Your task to perform on an android device: set the stopwatch Image 0: 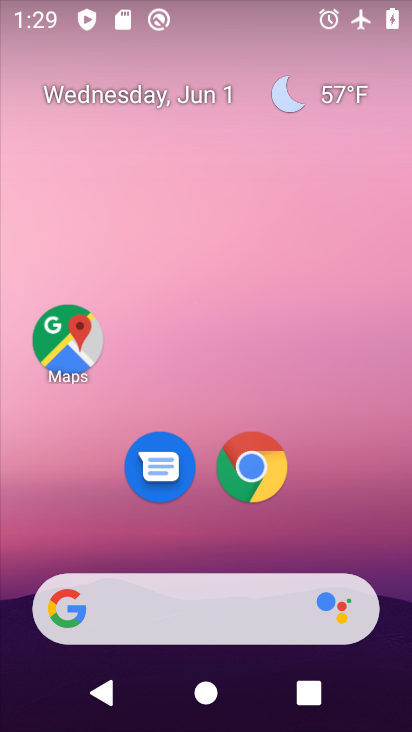
Step 0: drag from (396, 565) to (386, 140)
Your task to perform on an android device: set the stopwatch Image 1: 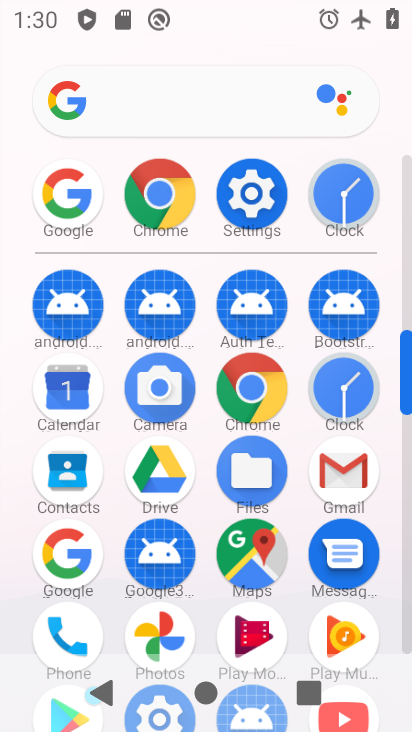
Step 1: click (358, 406)
Your task to perform on an android device: set the stopwatch Image 2: 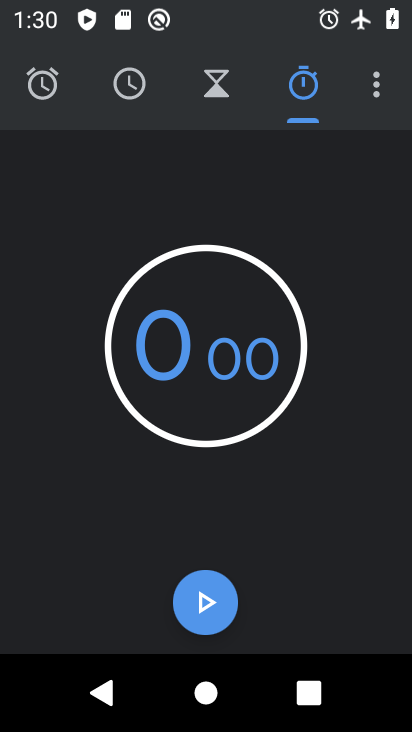
Step 2: click (205, 590)
Your task to perform on an android device: set the stopwatch Image 3: 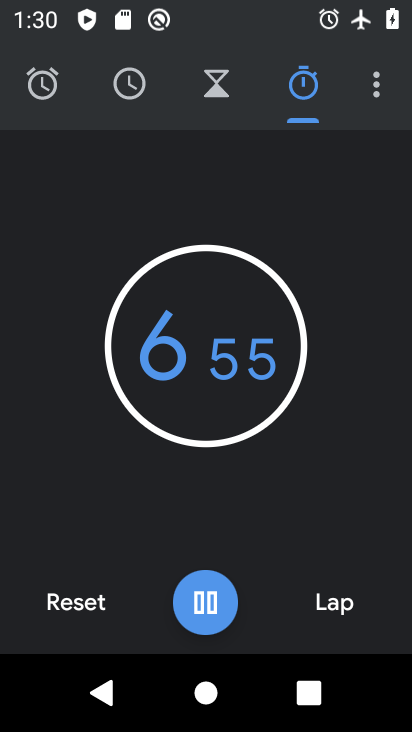
Step 3: task complete